Your task to perform on an android device: Open Google Maps and go to "Timeline" Image 0: 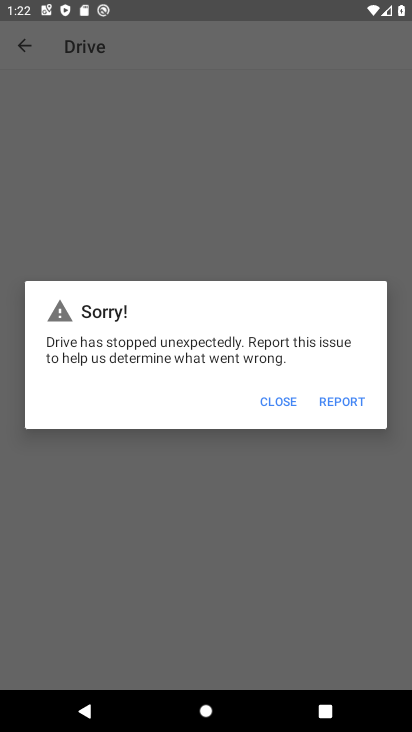
Step 0: press home button
Your task to perform on an android device: Open Google Maps and go to "Timeline" Image 1: 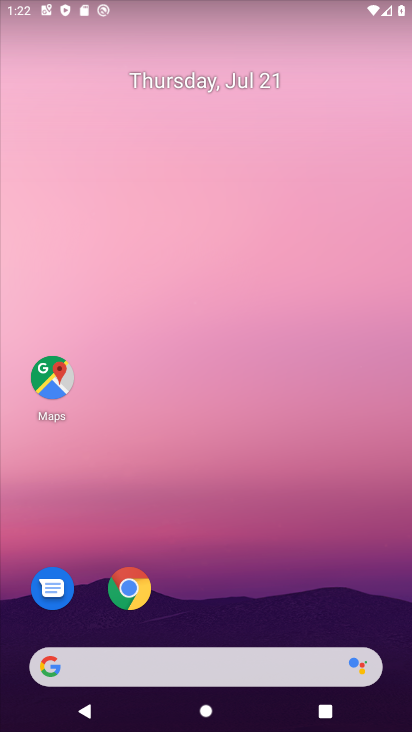
Step 1: drag from (270, 597) to (196, 114)
Your task to perform on an android device: Open Google Maps and go to "Timeline" Image 2: 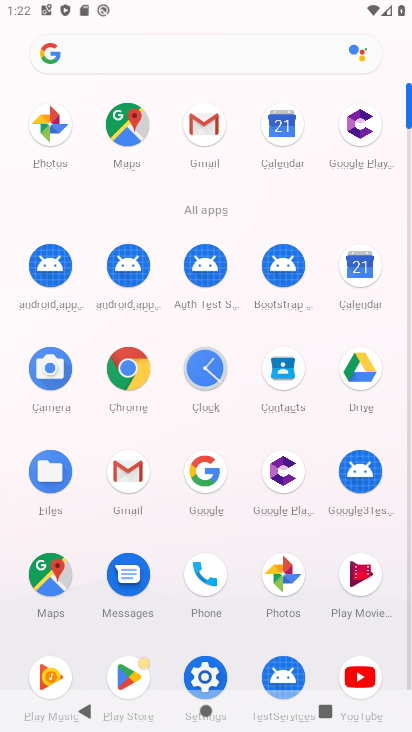
Step 2: click (131, 135)
Your task to perform on an android device: Open Google Maps and go to "Timeline" Image 3: 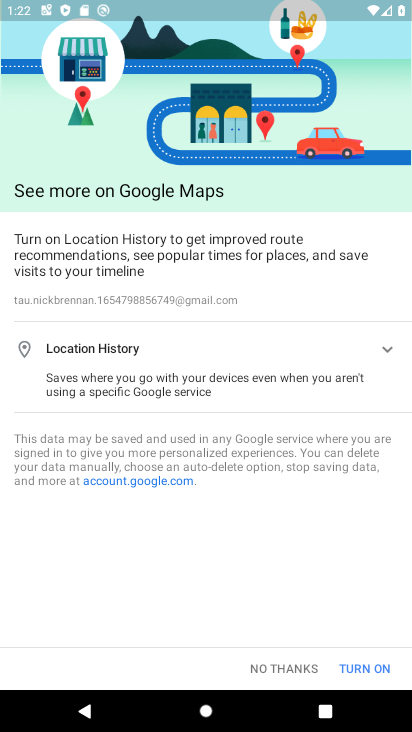
Step 3: click (309, 669)
Your task to perform on an android device: Open Google Maps and go to "Timeline" Image 4: 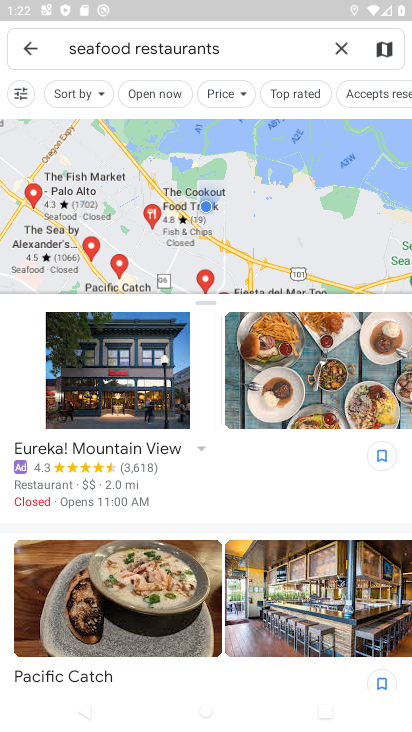
Step 4: click (31, 48)
Your task to perform on an android device: Open Google Maps and go to "Timeline" Image 5: 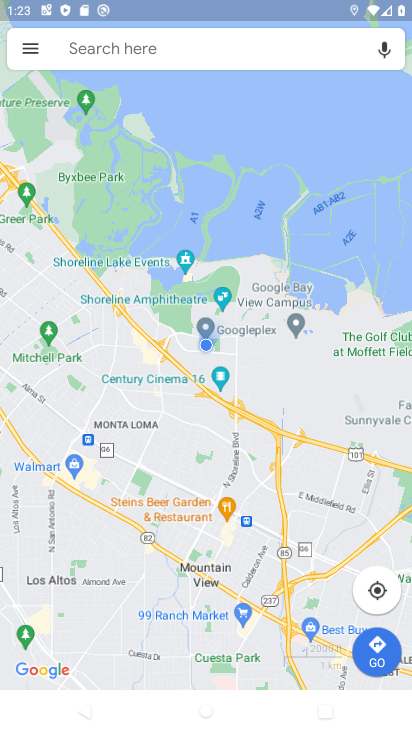
Step 5: click (31, 48)
Your task to perform on an android device: Open Google Maps and go to "Timeline" Image 6: 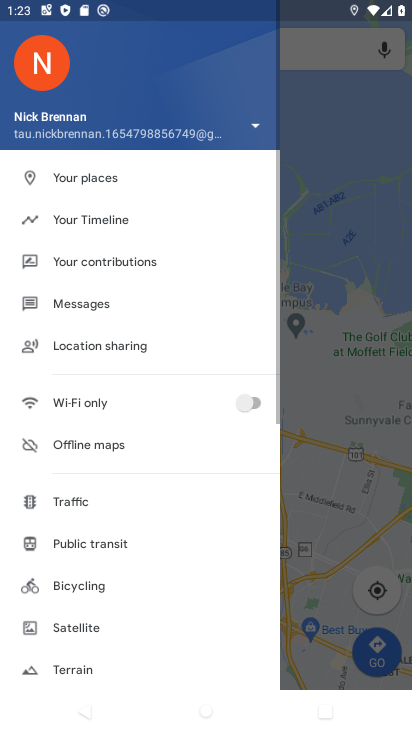
Step 6: click (111, 224)
Your task to perform on an android device: Open Google Maps and go to "Timeline" Image 7: 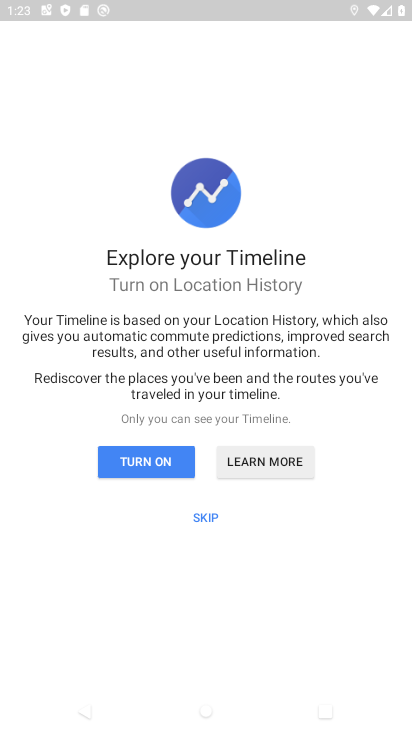
Step 7: click (160, 462)
Your task to perform on an android device: Open Google Maps and go to "Timeline" Image 8: 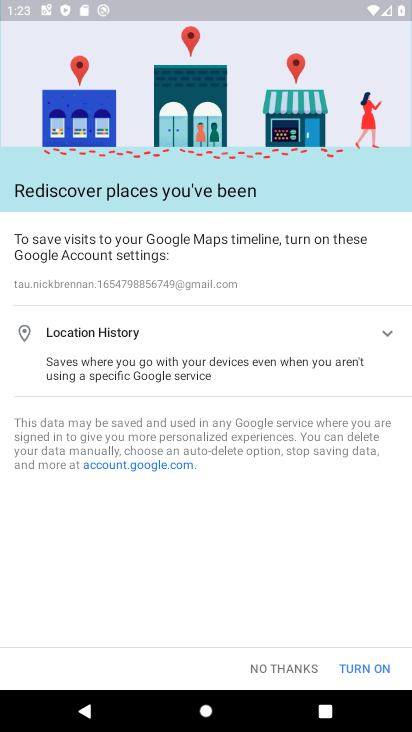
Step 8: click (375, 666)
Your task to perform on an android device: Open Google Maps and go to "Timeline" Image 9: 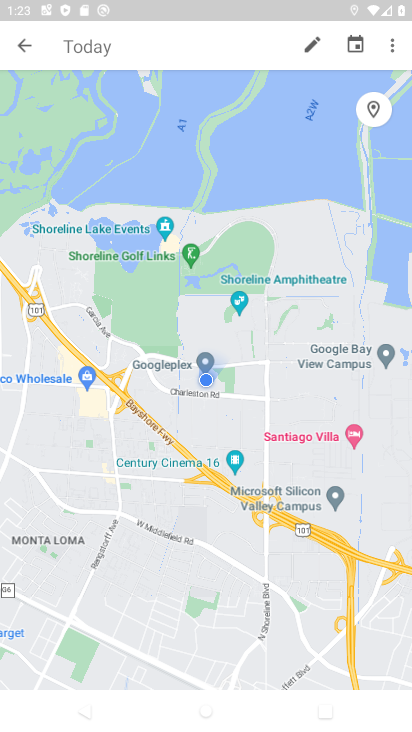
Step 9: task complete